Your task to perform on an android device: set the timer Image 0: 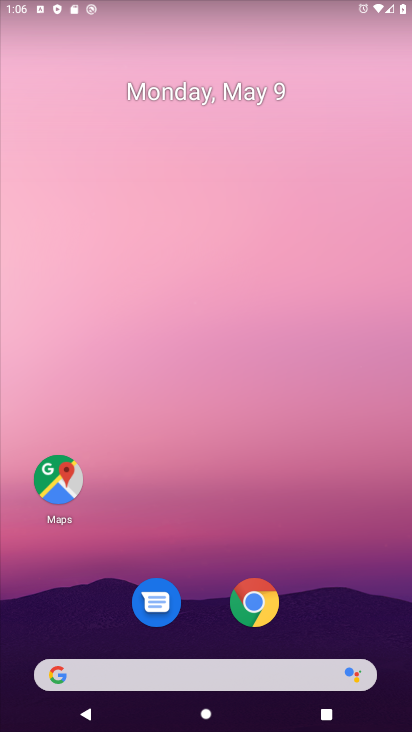
Step 0: drag from (299, 571) to (261, 4)
Your task to perform on an android device: set the timer Image 1: 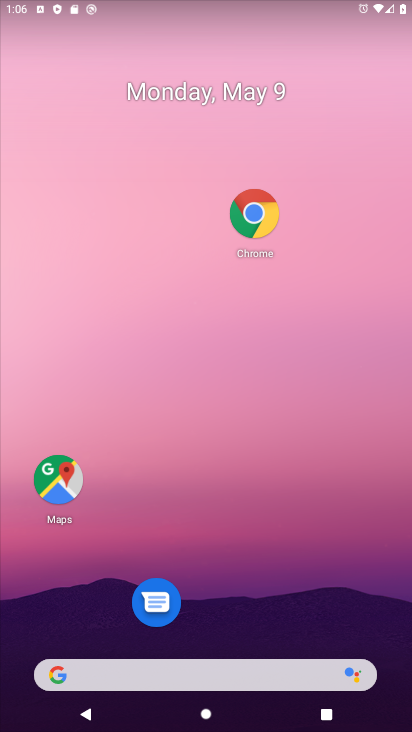
Step 1: drag from (282, 573) to (272, 85)
Your task to perform on an android device: set the timer Image 2: 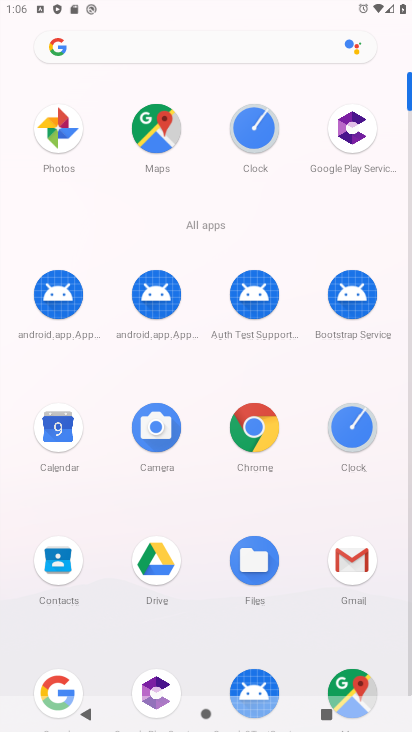
Step 2: click (251, 153)
Your task to perform on an android device: set the timer Image 3: 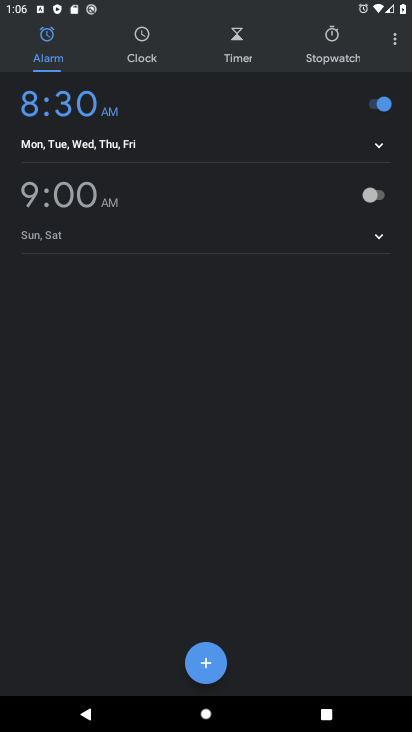
Step 3: click (246, 49)
Your task to perform on an android device: set the timer Image 4: 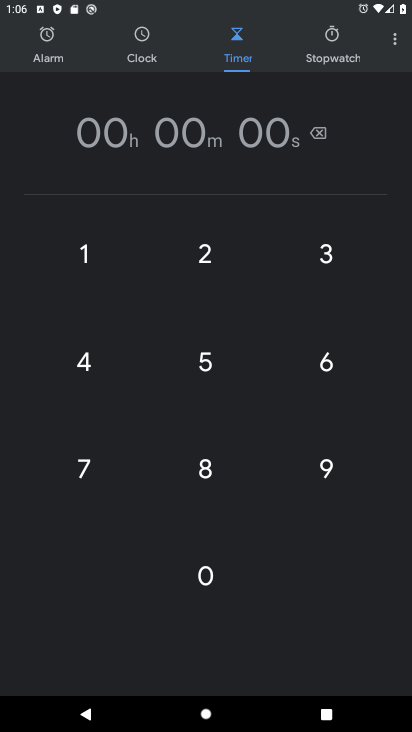
Step 4: task complete